Your task to perform on an android device: Go to network settings Image 0: 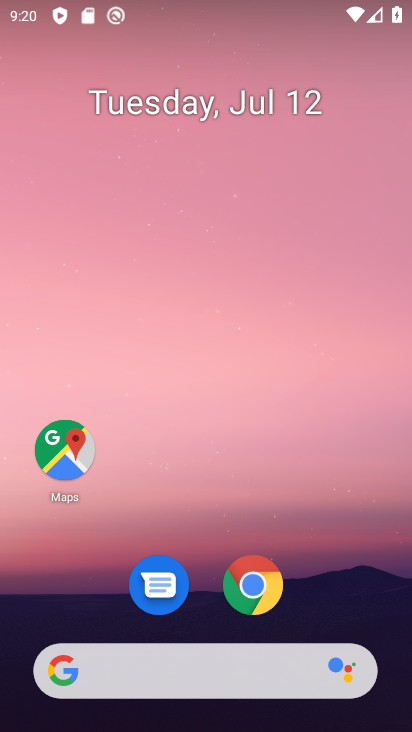
Step 0: drag from (178, 675) to (276, 401)
Your task to perform on an android device: Go to network settings Image 1: 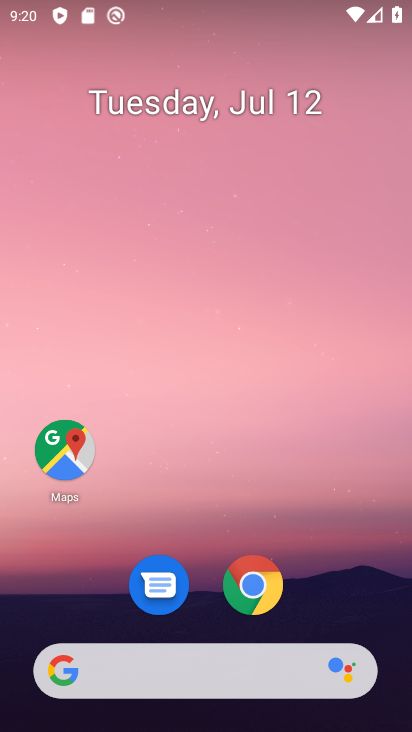
Step 1: drag from (194, 668) to (346, 161)
Your task to perform on an android device: Go to network settings Image 2: 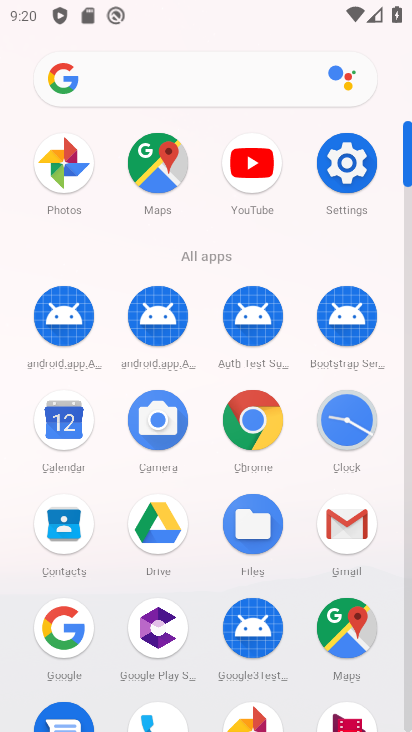
Step 2: click (361, 158)
Your task to perform on an android device: Go to network settings Image 3: 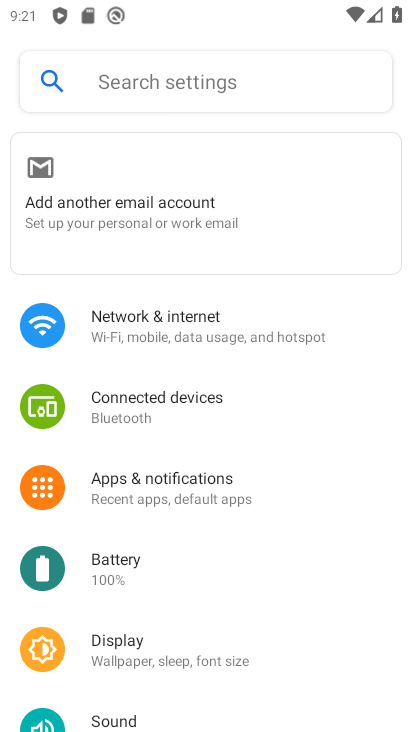
Step 3: click (169, 329)
Your task to perform on an android device: Go to network settings Image 4: 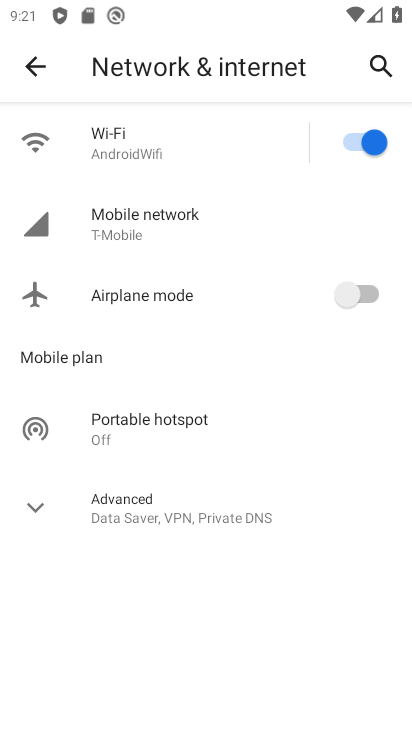
Step 4: click (163, 225)
Your task to perform on an android device: Go to network settings Image 5: 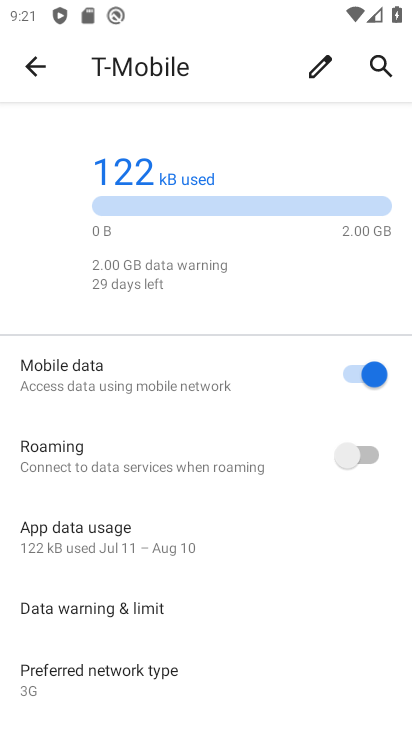
Step 5: task complete